Your task to perform on an android device: Open calendar and show me the fourth week of next month Image 0: 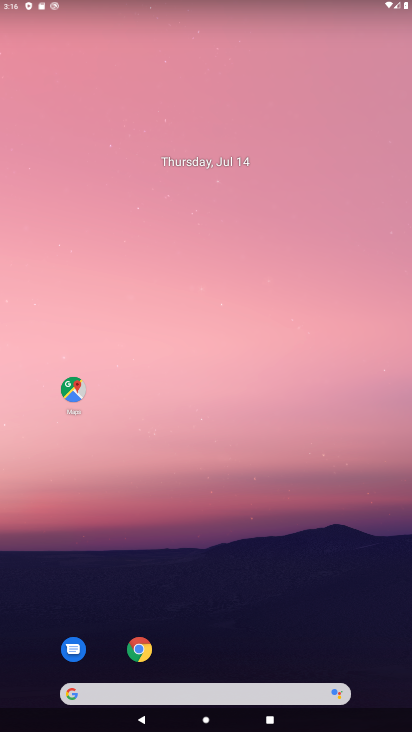
Step 0: drag from (192, 660) to (171, 184)
Your task to perform on an android device: Open calendar and show me the fourth week of next month Image 1: 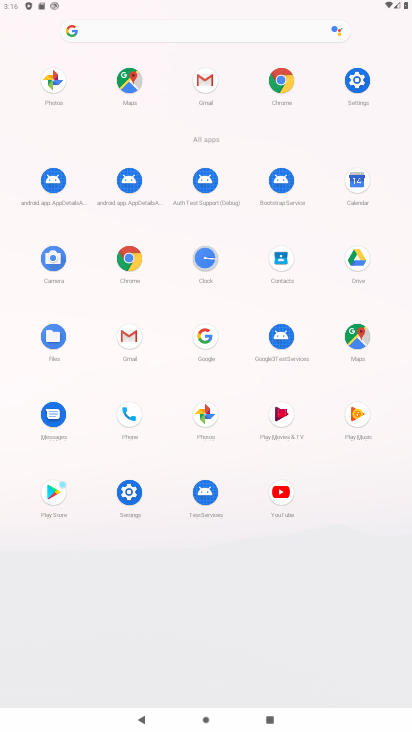
Step 1: click (364, 187)
Your task to perform on an android device: Open calendar and show me the fourth week of next month Image 2: 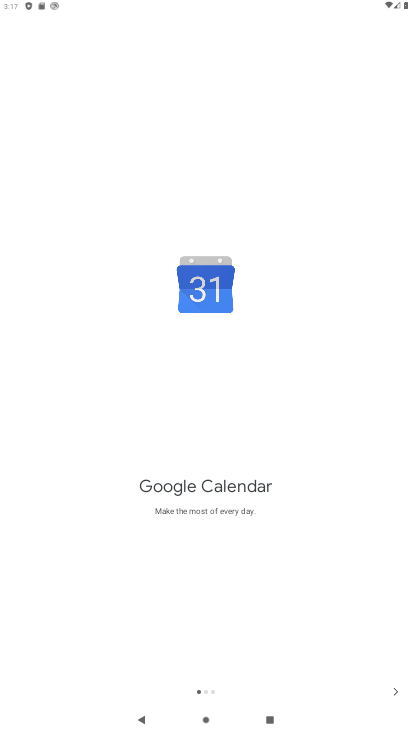
Step 2: click (391, 689)
Your task to perform on an android device: Open calendar and show me the fourth week of next month Image 3: 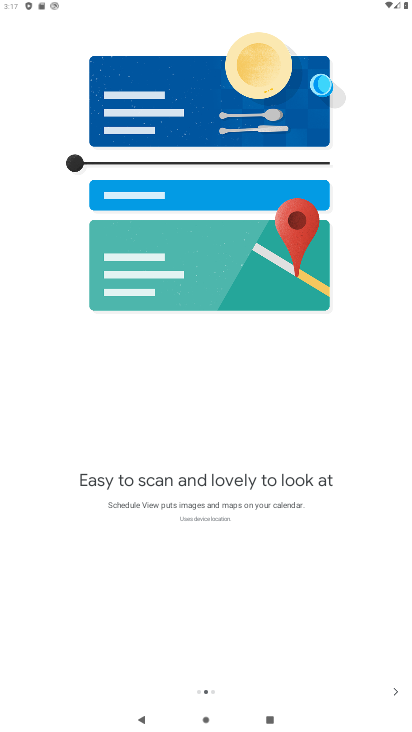
Step 3: click (387, 689)
Your task to perform on an android device: Open calendar and show me the fourth week of next month Image 4: 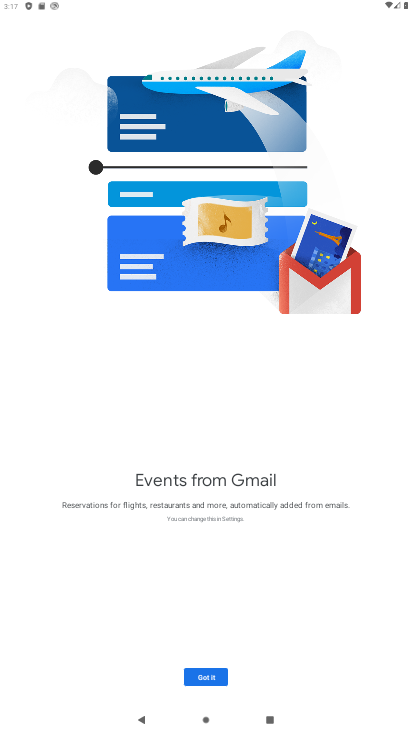
Step 4: click (175, 669)
Your task to perform on an android device: Open calendar and show me the fourth week of next month Image 5: 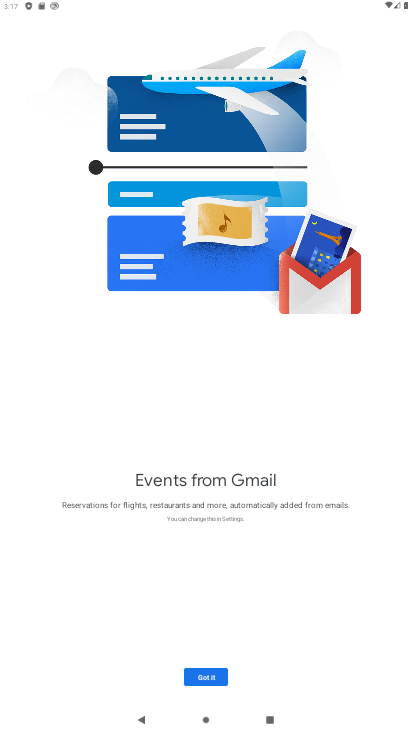
Step 5: click (205, 672)
Your task to perform on an android device: Open calendar and show me the fourth week of next month Image 6: 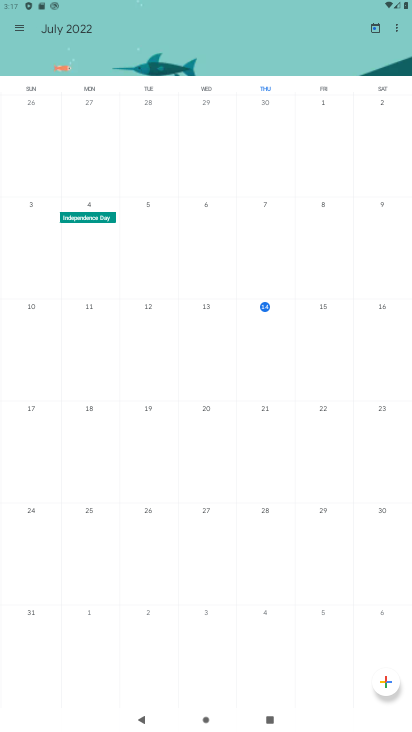
Step 6: drag from (178, 569) to (151, 48)
Your task to perform on an android device: Open calendar and show me the fourth week of next month Image 7: 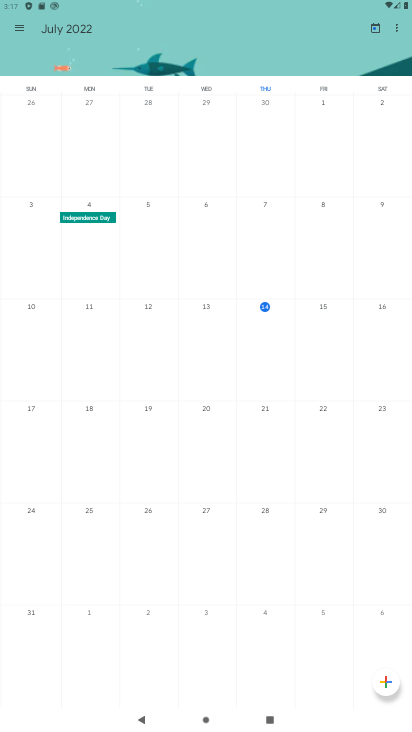
Step 7: click (22, 27)
Your task to perform on an android device: Open calendar and show me the fourth week of next month Image 8: 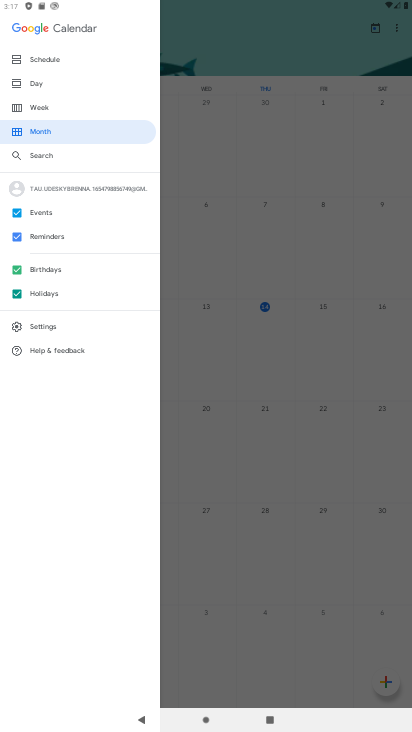
Step 8: click (35, 108)
Your task to perform on an android device: Open calendar and show me the fourth week of next month Image 9: 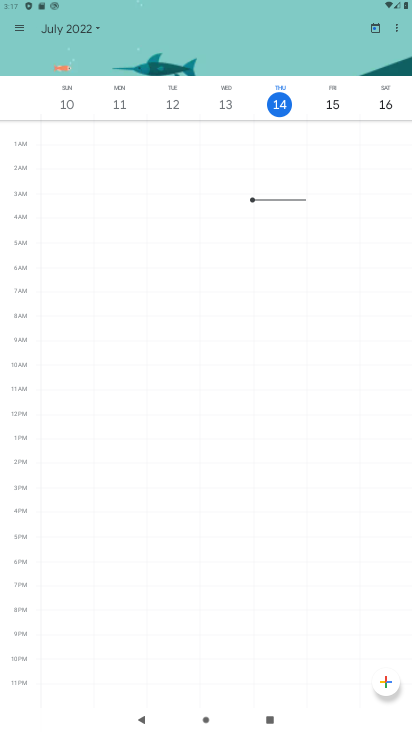
Step 9: task complete